Your task to perform on an android device: change text size in settings app Image 0: 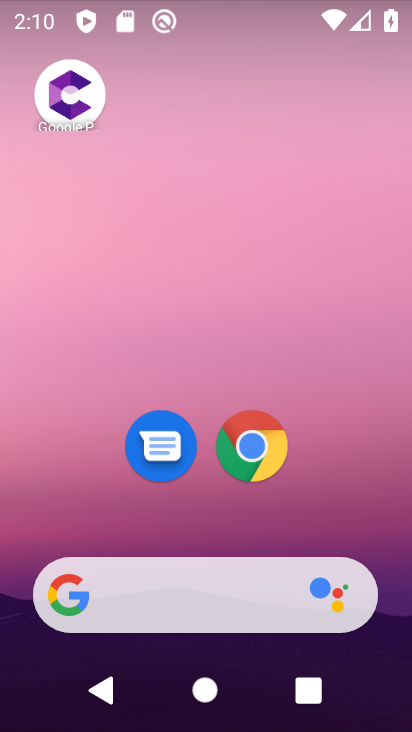
Step 0: drag from (389, 614) to (336, 286)
Your task to perform on an android device: change text size in settings app Image 1: 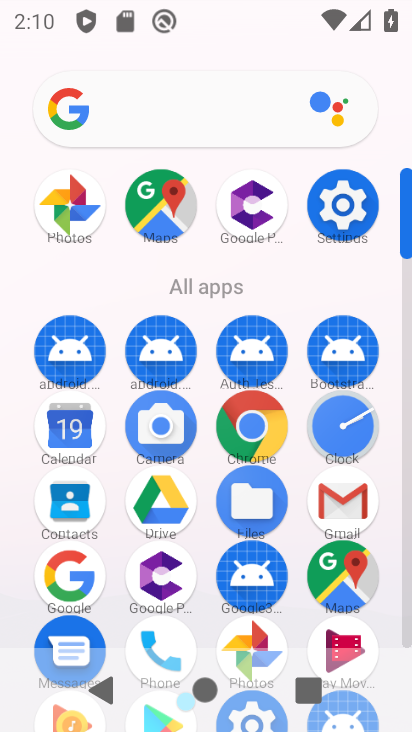
Step 1: click (353, 209)
Your task to perform on an android device: change text size in settings app Image 2: 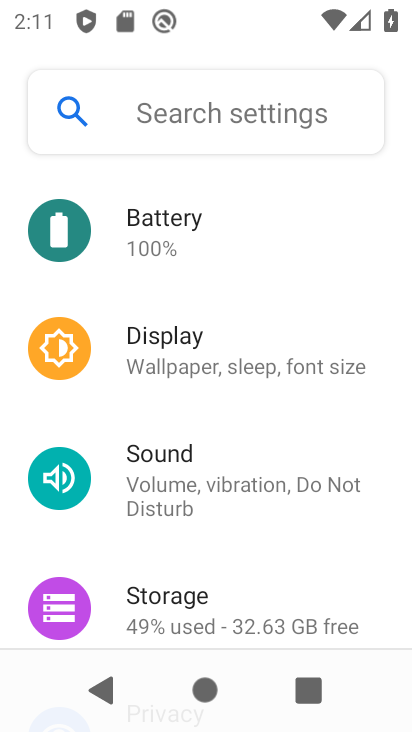
Step 2: click (184, 351)
Your task to perform on an android device: change text size in settings app Image 3: 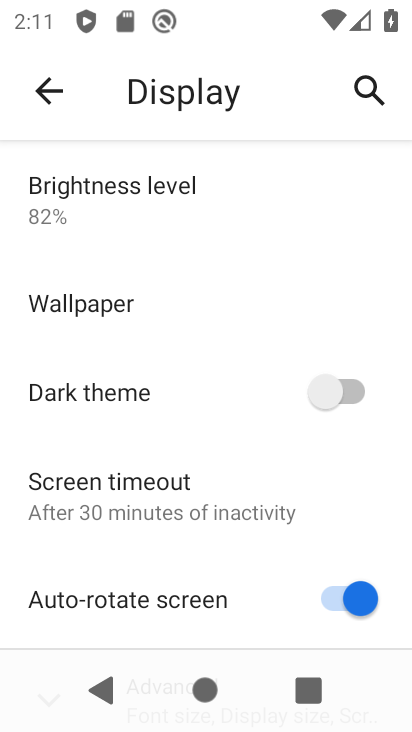
Step 3: drag from (262, 606) to (223, 262)
Your task to perform on an android device: change text size in settings app Image 4: 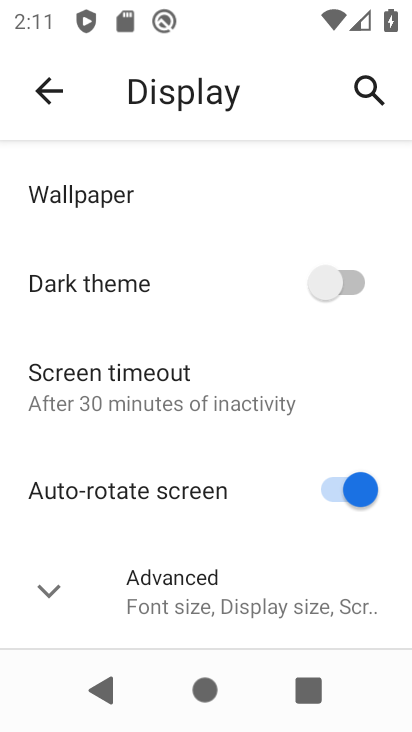
Step 4: click (57, 589)
Your task to perform on an android device: change text size in settings app Image 5: 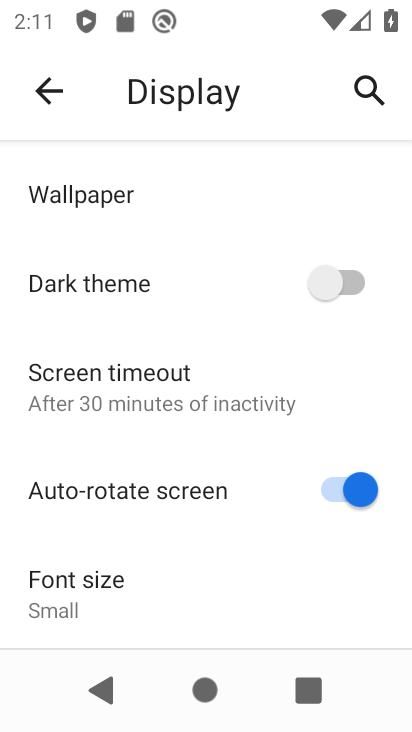
Step 5: click (76, 584)
Your task to perform on an android device: change text size in settings app Image 6: 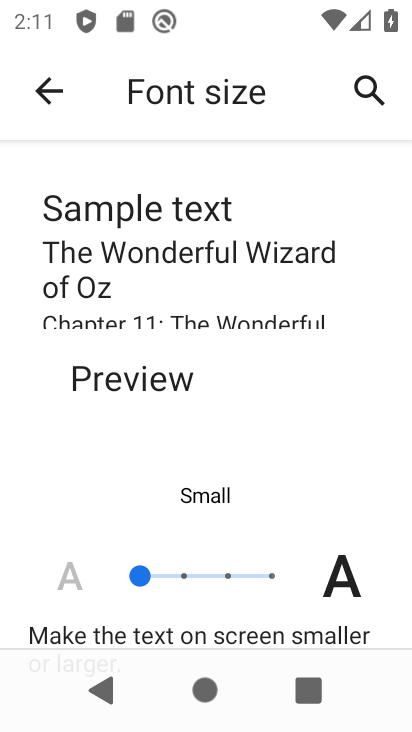
Step 6: click (145, 572)
Your task to perform on an android device: change text size in settings app Image 7: 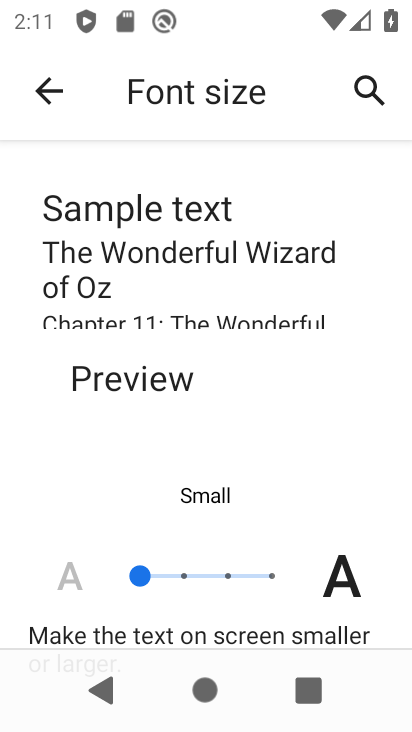
Step 7: click (145, 576)
Your task to perform on an android device: change text size in settings app Image 8: 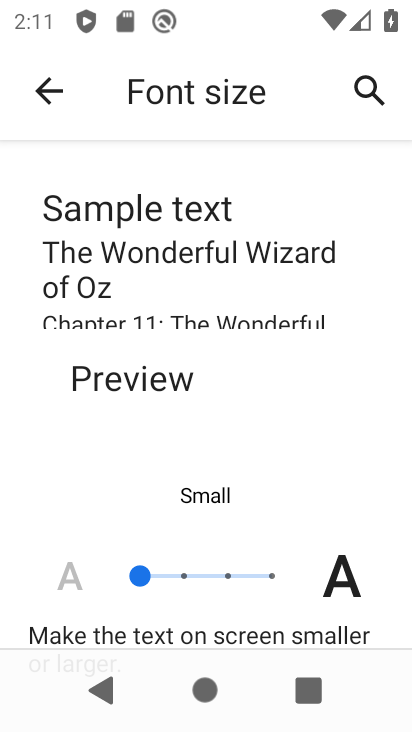
Step 8: click (188, 577)
Your task to perform on an android device: change text size in settings app Image 9: 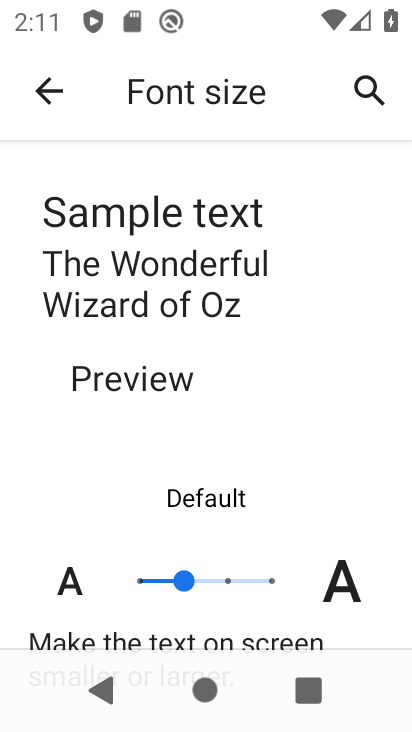
Step 9: click (154, 574)
Your task to perform on an android device: change text size in settings app Image 10: 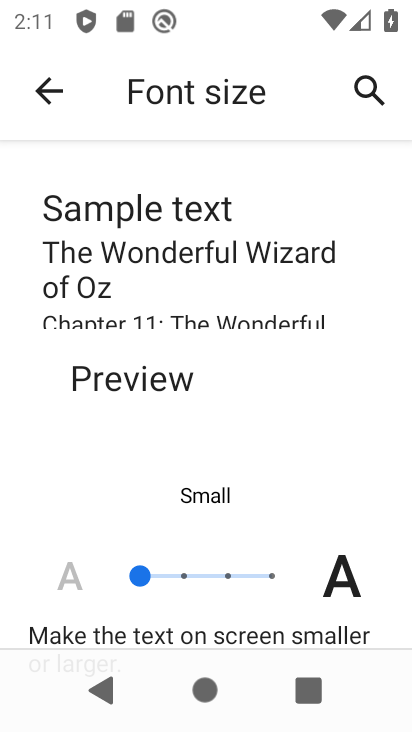
Step 10: click (156, 578)
Your task to perform on an android device: change text size in settings app Image 11: 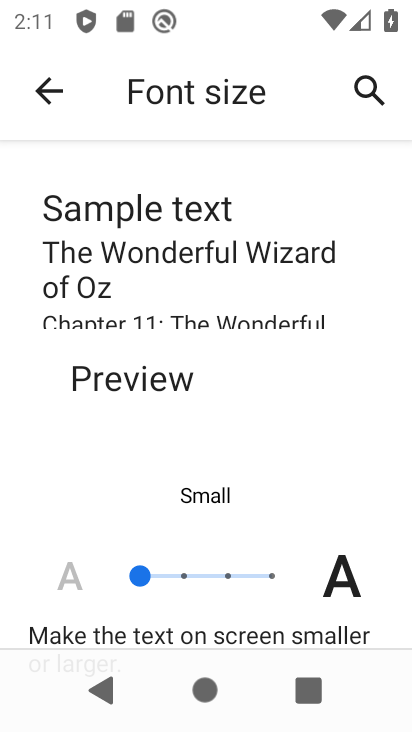
Step 11: click (156, 578)
Your task to perform on an android device: change text size in settings app Image 12: 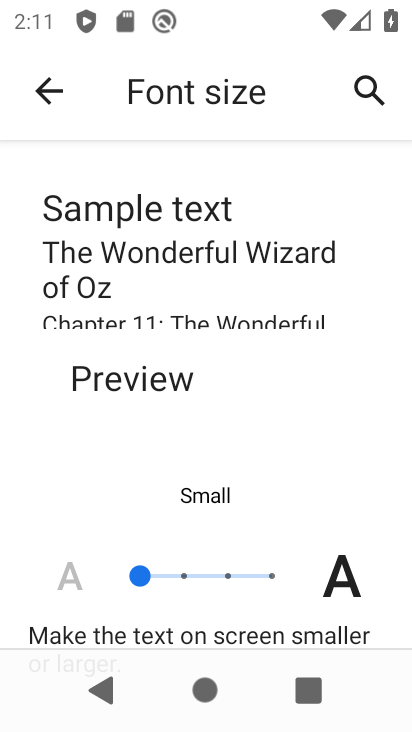
Step 12: click (157, 573)
Your task to perform on an android device: change text size in settings app Image 13: 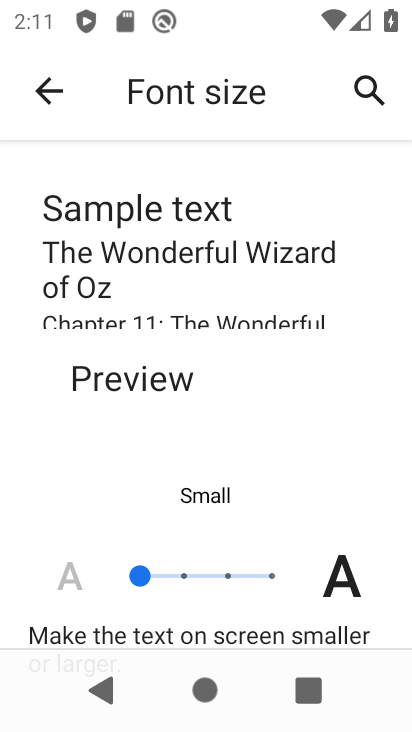
Step 13: task complete